Your task to perform on an android device: open app "NewsBreak: Local News & Alerts" (install if not already installed), go to login, and select forgot password Image 0: 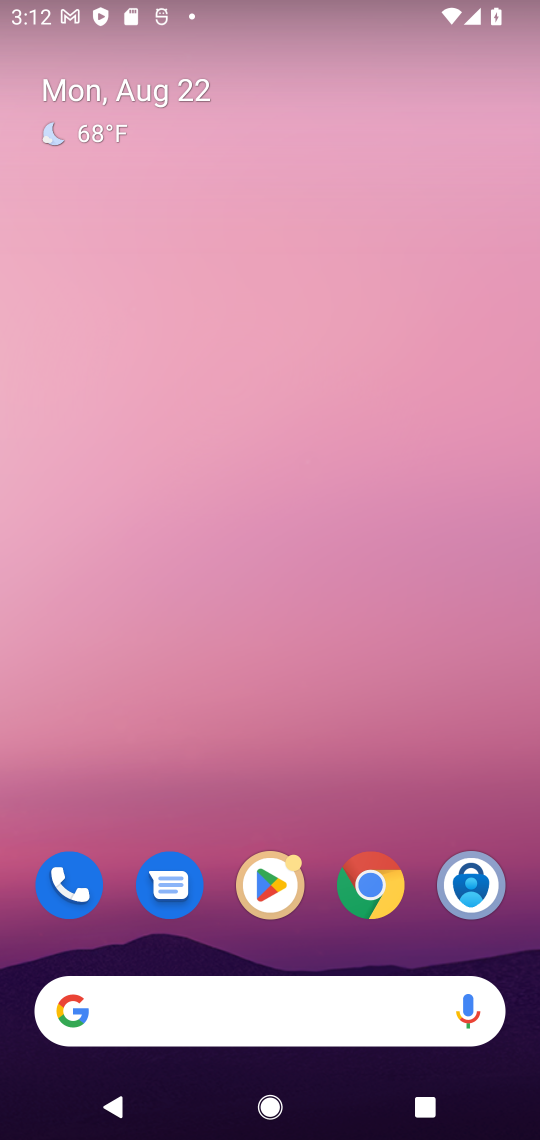
Step 0: click (262, 878)
Your task to perform on an android device: open app "NewsBreak: Local News & Alerts" (install if not already installed), go to login, and select forgot password Image 1: 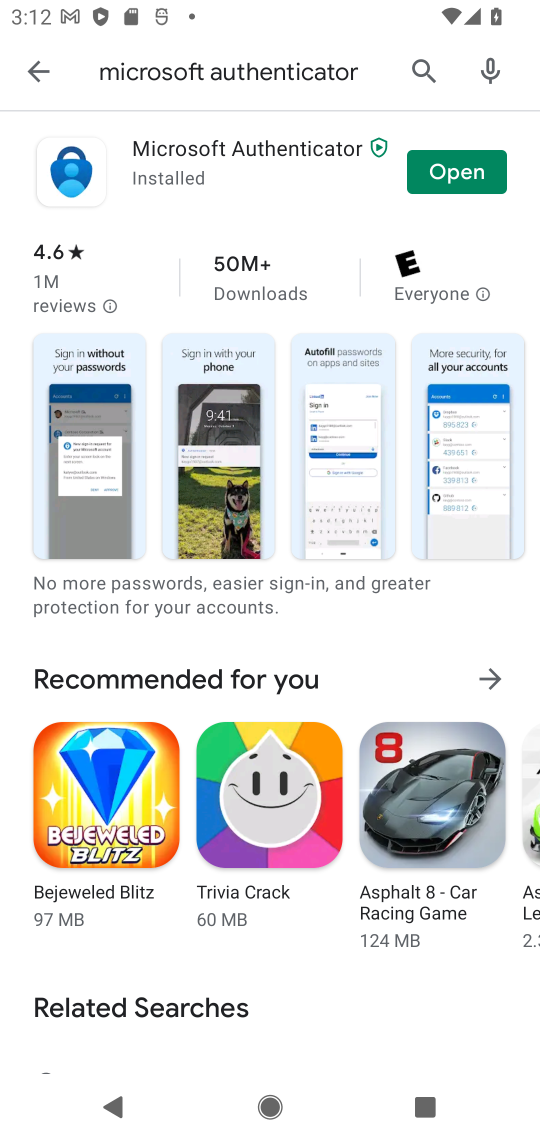
Step 1: click (420, 76)
Your task to perform on an android device: open app "NewsBreak: Local News & Alerts" (install if not already installed), go to login, and select forgot password Image 2: 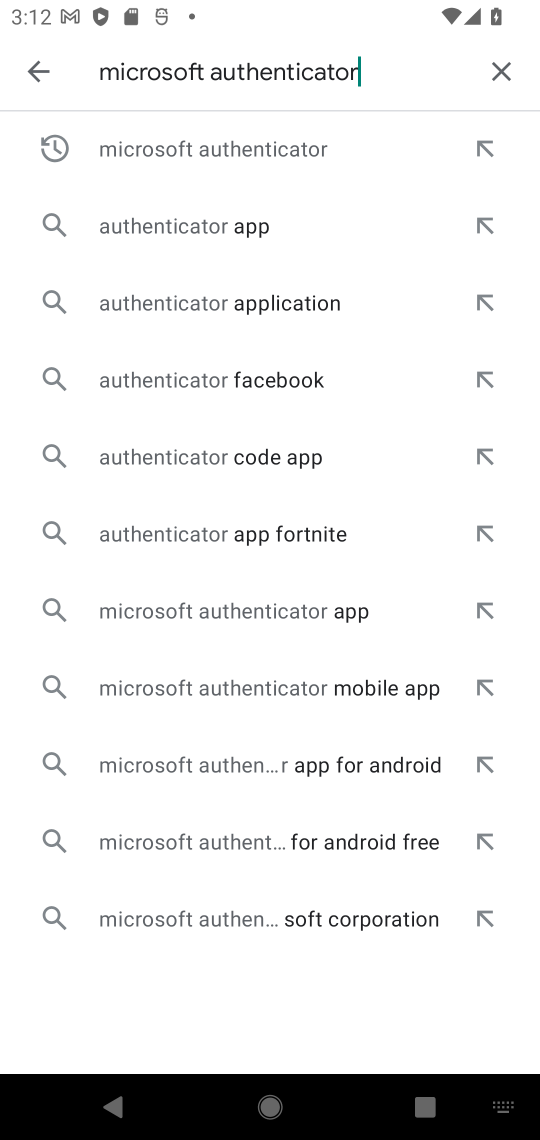
Step 2: click (498, 74)
Your task to perform on an android device: open app "NewsBreak: Local News & Alerts" (install if not already installed), go to login, and select forgot password Image 3: 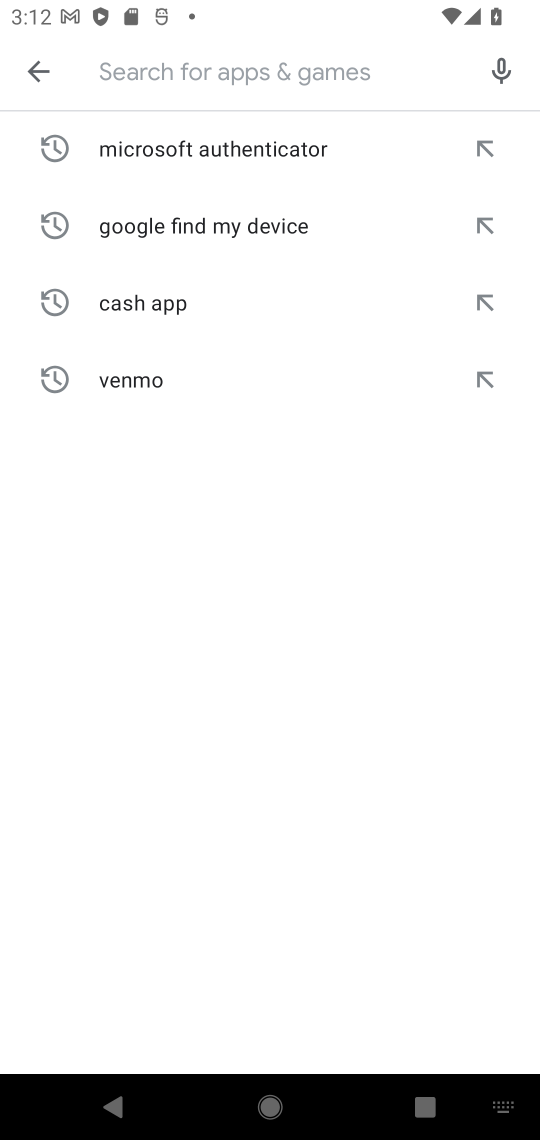
Step 3: type "NewsBreak: Local News & Alerts"
Your task to perform on an android device: open app "NewsBreak: Local News & Alerts" (install if not already installed), go to login, and select forgot password Image 4: 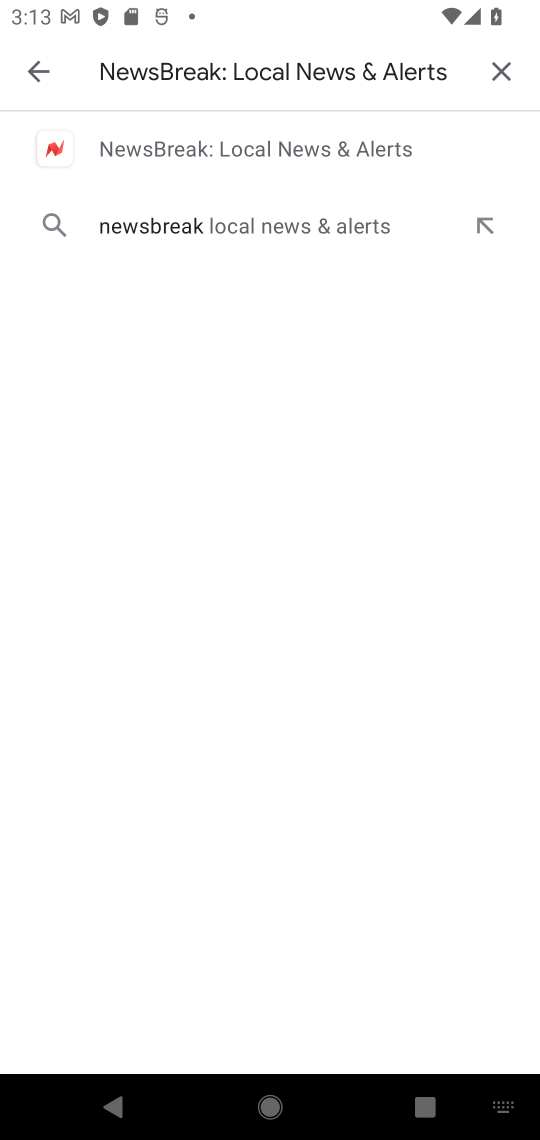
Step 4: click (185, 148)
Your task to perform on an android device: open app "NewsBreak: Local News & Alerts" (install if not already installed), go to login, and select forgot password Image 5: 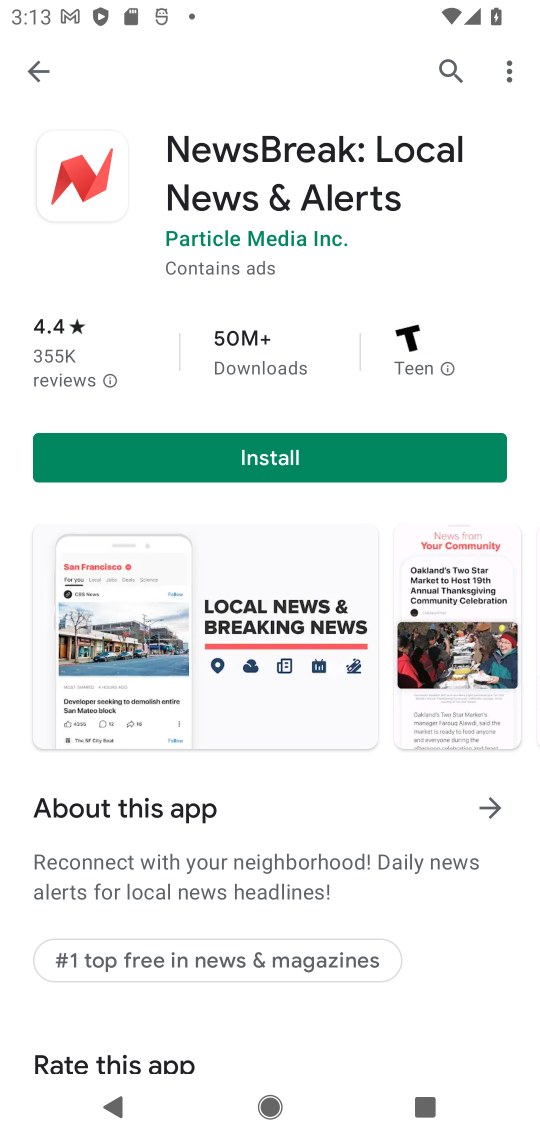
Step 5: click (275, 454)
Your task to perform on an android device: open app "NewsBreak: Local News & Alerts" (install if not already installed), go to login, and select forgot password Image 6: 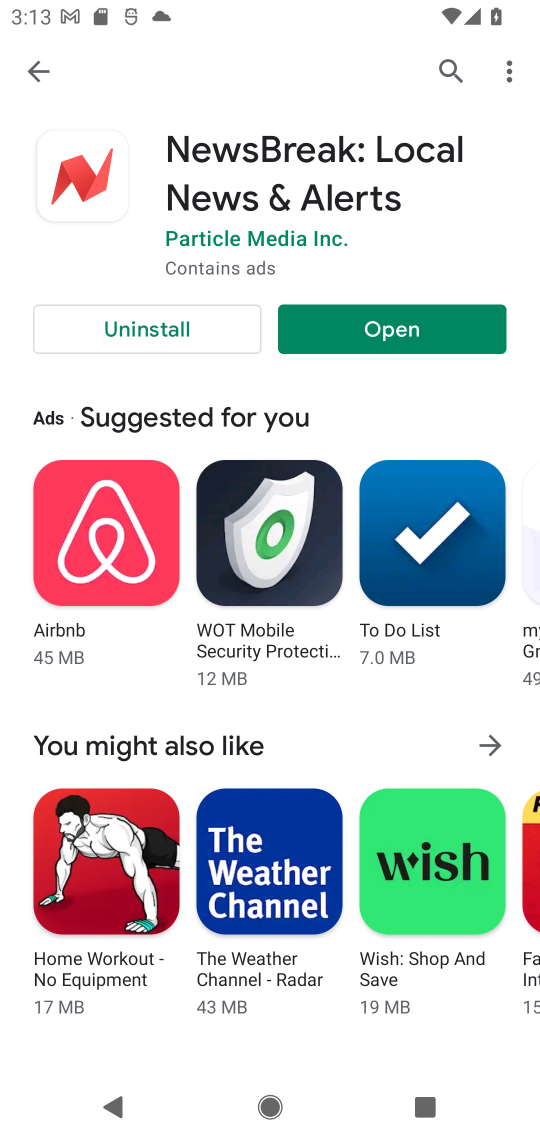
Step 6: click (403, 338)
Your task to perform on an android device: open app "NewsBreak: Local News & Alerts" (install if not already installed), go to login, and select forgot password Image 7: 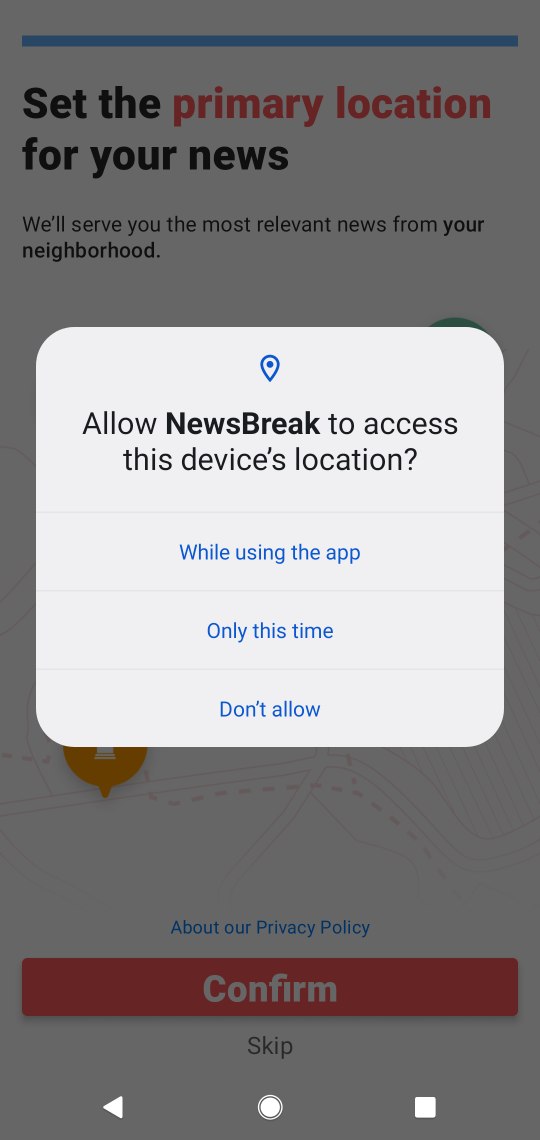
Step 7: click (305, 550)
Your task to perform on an android device: open app "NewsBreak: Local News & Alerts" (install if not already installed), go to login, and select forgot password Image 8: 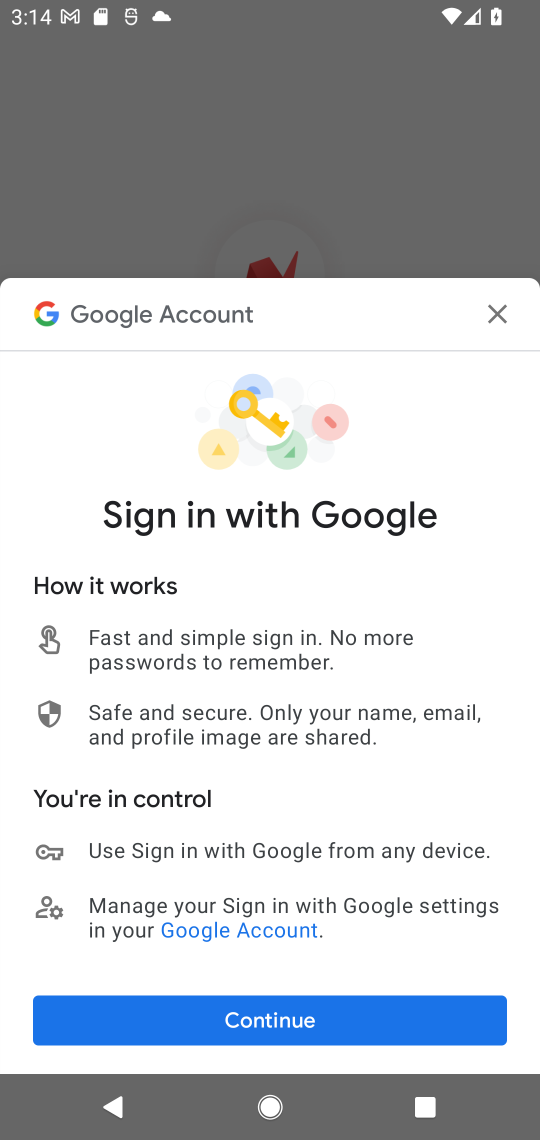
Step 8: click (275, 1016)
Your task to perform on an android device: open app "NewsBreak: Local News & Alerts" (install if not already installed), go to login, and select forgot password Image 9: 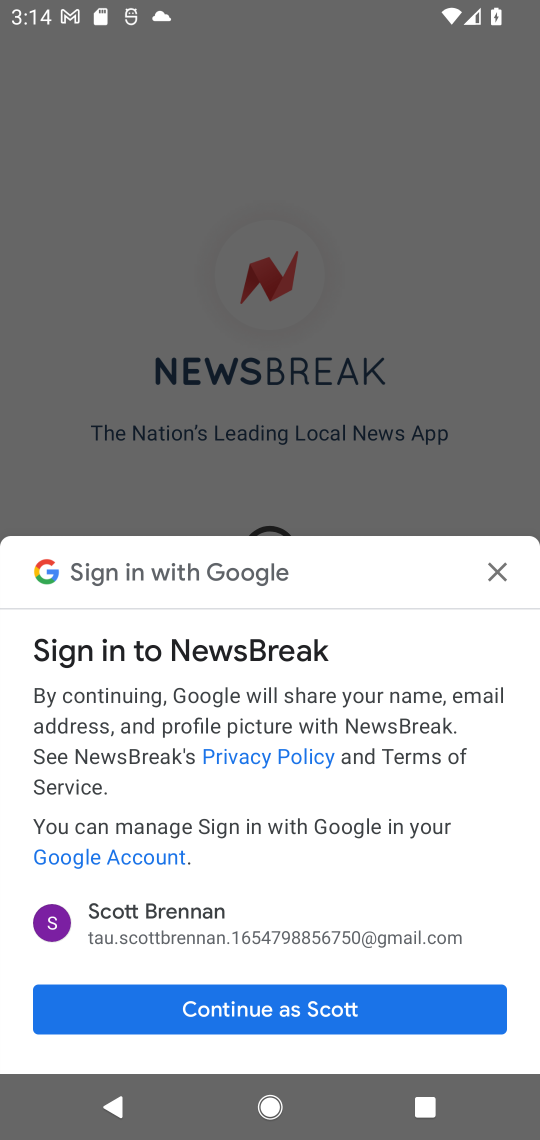
Step 9: click (272, 1011)
Your task to perform on an android device: open app "NewsBreak: Local News & Alerts" (install if not already installed), go to login, and select forgot password Image 10: 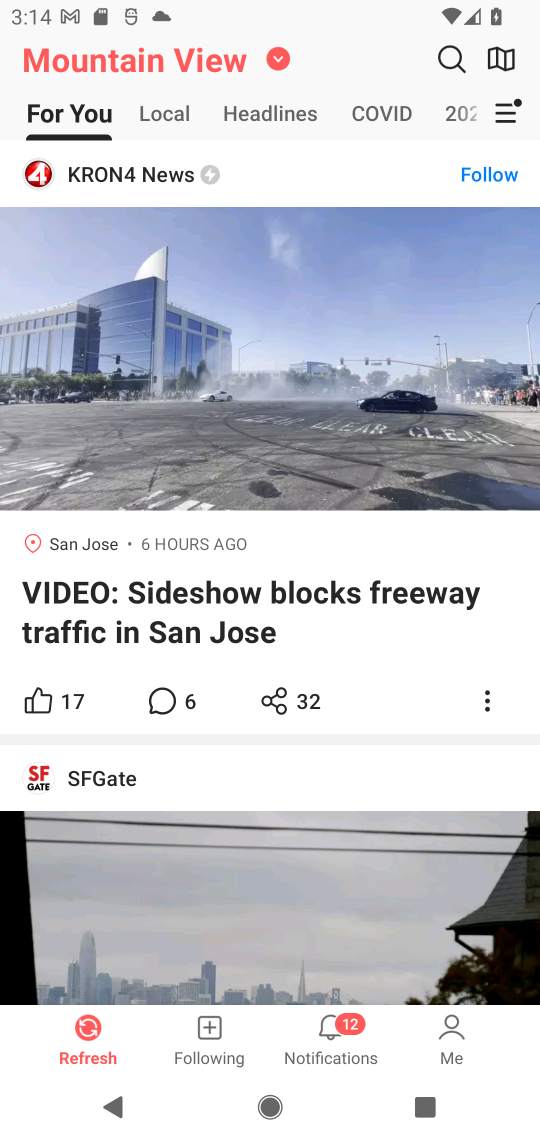
Step 10: task complete